Your task to perform on an android device: delete the emails in spam in the gmail app Image 0: 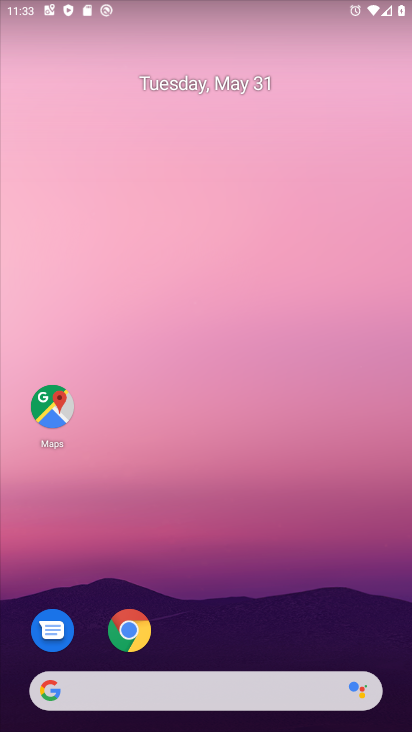
Step 0: drag from (112, 539) to (102, 99)
Your task to perform on an android device: delete the emails in spam in the gmail app Image 1: 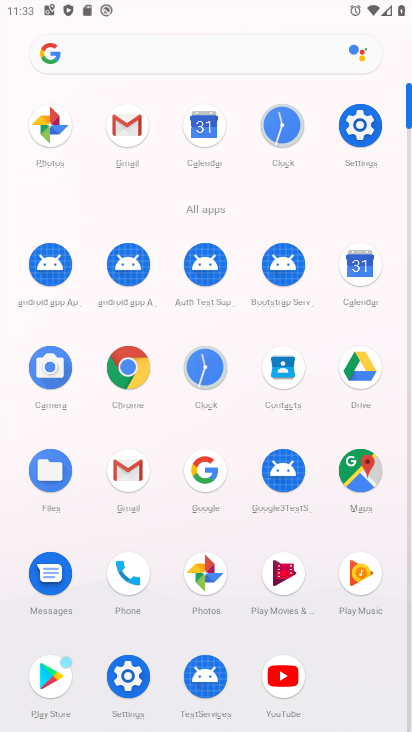
Step 1: click (127, 120)
Your task to perform on an android device: delete the emails in spam in the gmail app Image 2: 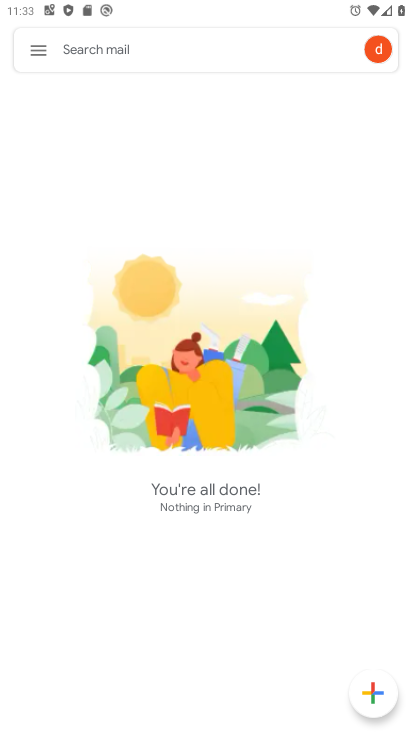
Step 2: click (31, 43)
Your task to perform on an android device: delete the emails in spam in the gmail app Image 3: 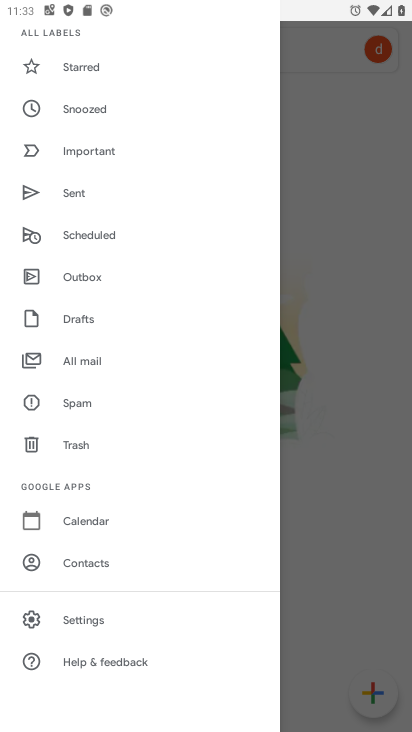
Step 3: click (65, 398)
Your task to perform on an android device: delete the emails in spam in the gmail app Image 4: 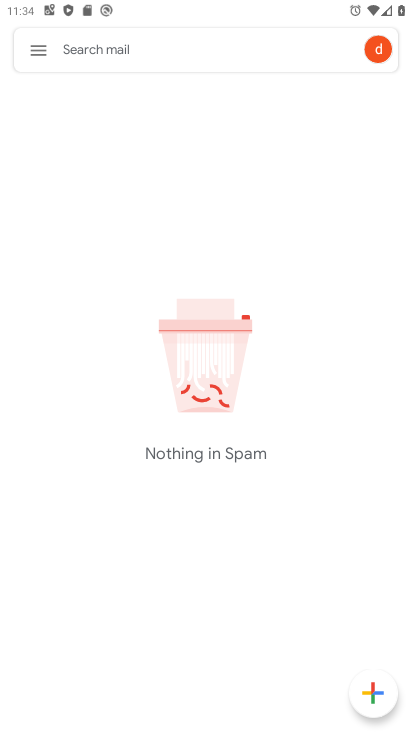
Step 4: task complete